Your task to perform on an android device: open the mobile data screen to see how much data has been used Image 0: 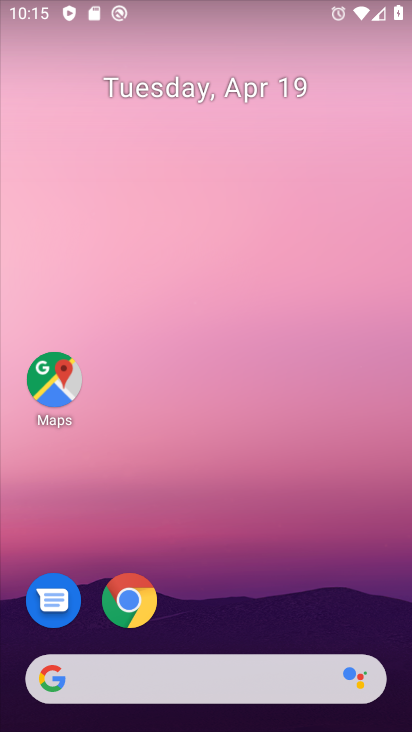
Step 0: drag from (277, 181) to (376, 5)
Your task to perform on an android device: open the mobile data screen to see how much data has been used Image 1: 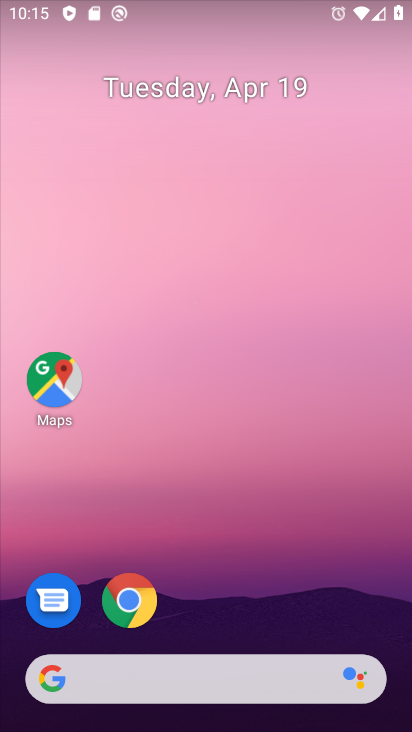
Step 1: drag from (246, 503) to (409, 192)
Your task to perform on an android device: open the mobile data screen to see how much data has been used Image 2: 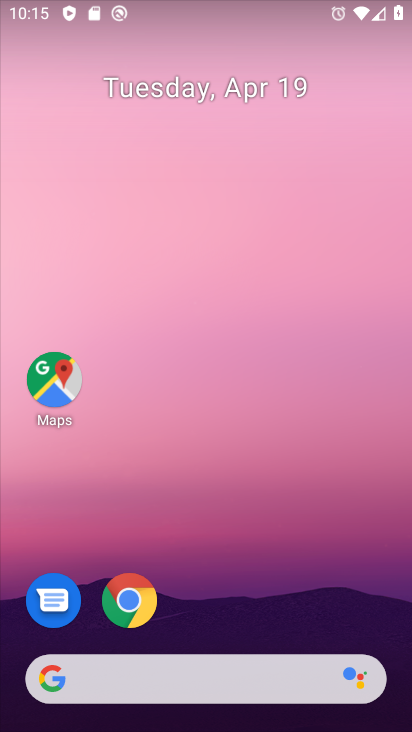
Step 2: drag from (247, 633) to (405, 225)
Your task to perform on an android device: open the mobile data screen to see how much data has been used Image 3: 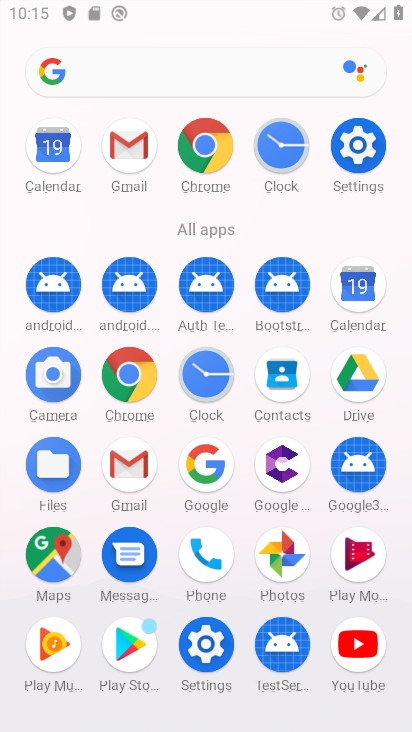
Step 3: click (360, 152)
Your task to perform on an android device: open the mobile data screen to see how much data has been used Image 4: 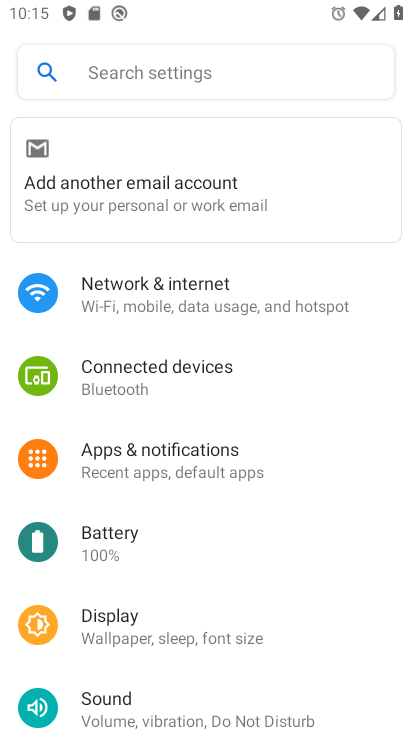
Step 4: click (181, 298)
Your task to perform on an android device: open the mobile data screen to see how much data has been used Image 5: 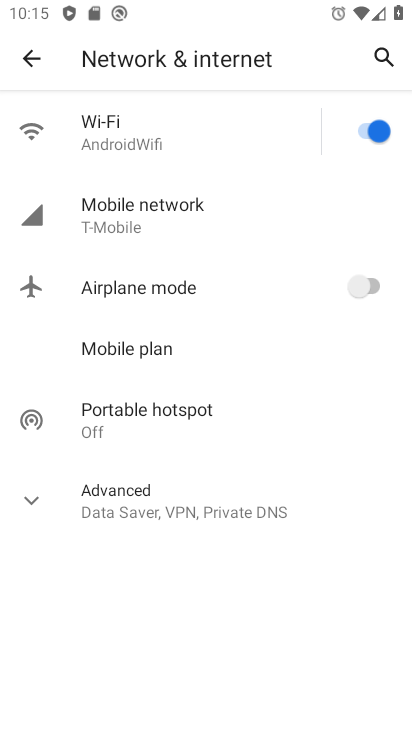
Step 5: click (159, 207)
Your task to perform on an android device: open the mobile data screen to see how much data has been used Image 6: 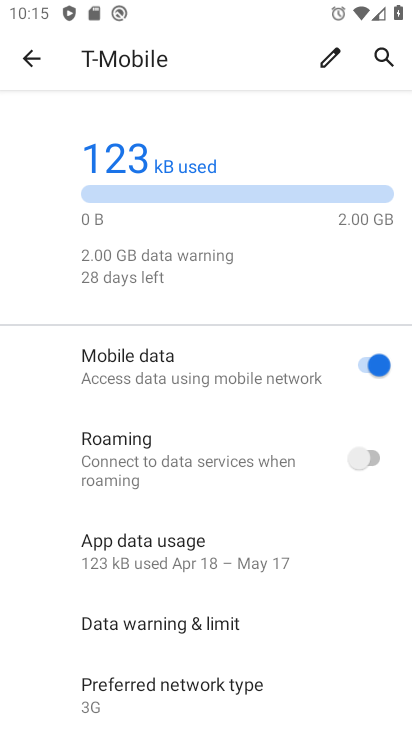
Step 6: click (171, 552)
Your task to perform on an android device: open the mobile data screen to see how much data has been used Image 7: 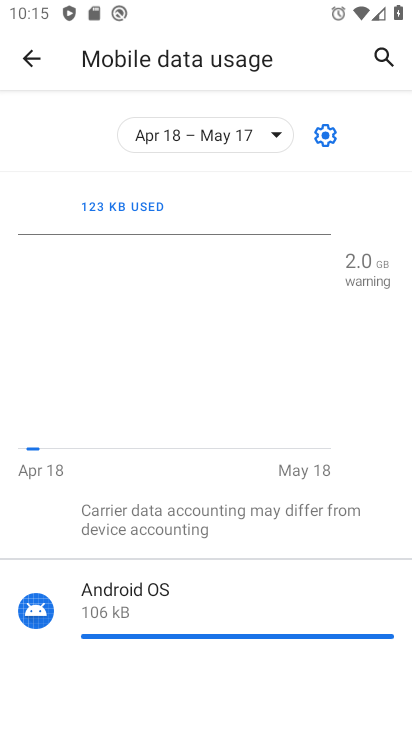
Step 7: task complete